Your task to perform on an android device: turn on airplane mode Image 0: 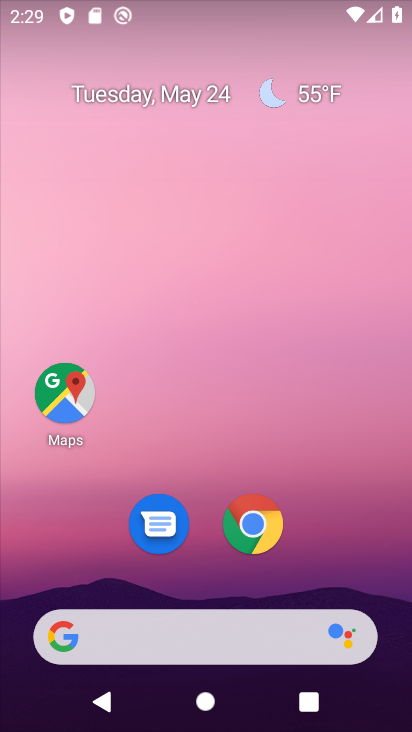
Step 0: drag from (250, 443) to (278, 2)
Your task to perform on an android device: turn on airplane mode Image 1: 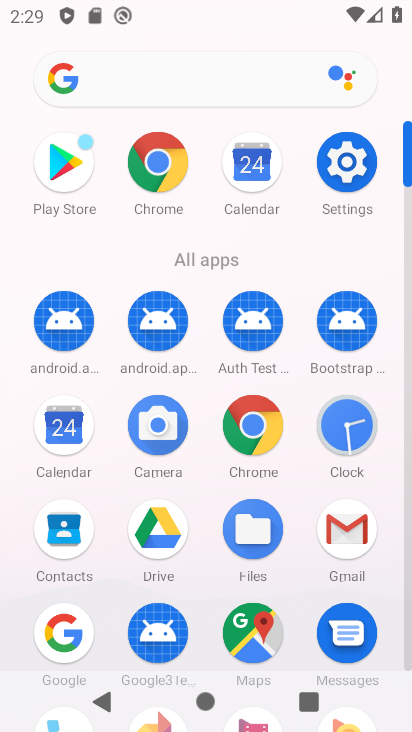
Step 1: click (349, 178)
Your task to perform on an android device: turn on airplane mode Image 2: 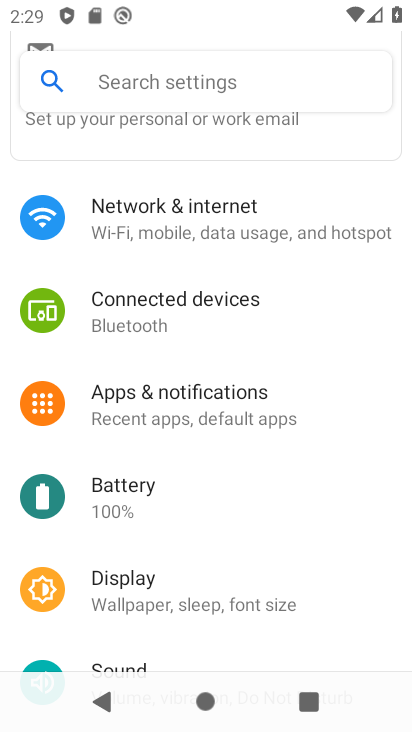
Step 2: click (294, 223)
Your task to perform on an android device: turn on airplane mode Image 3: 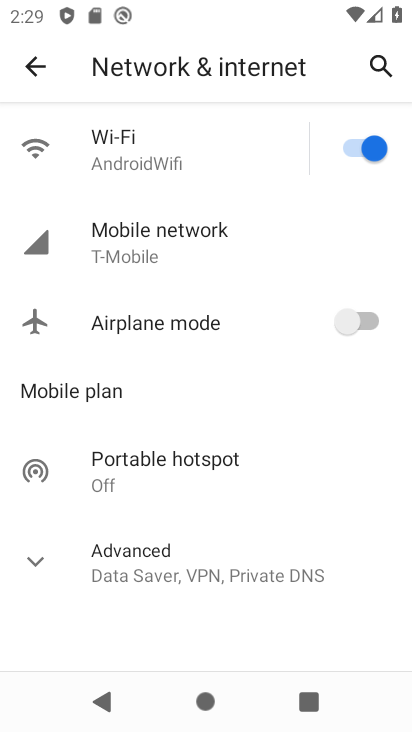
Step 3: click (374, 309)
Your task to perform on an android device: turn on airplane mode Image 4: 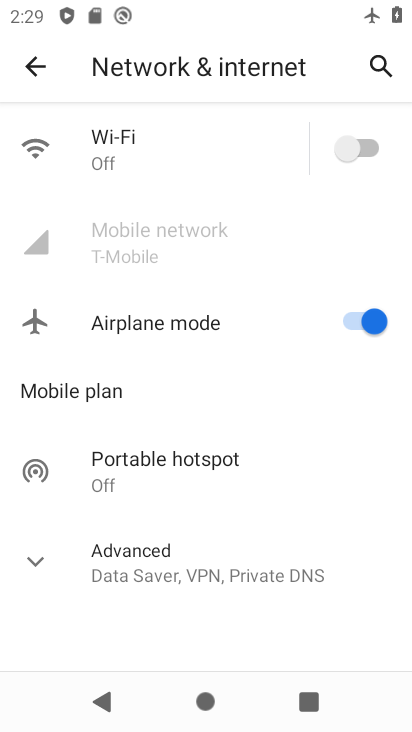
Step 4: task complete